Your task to perform on an android device: toggle priority inbox in the gmail app Image 0: 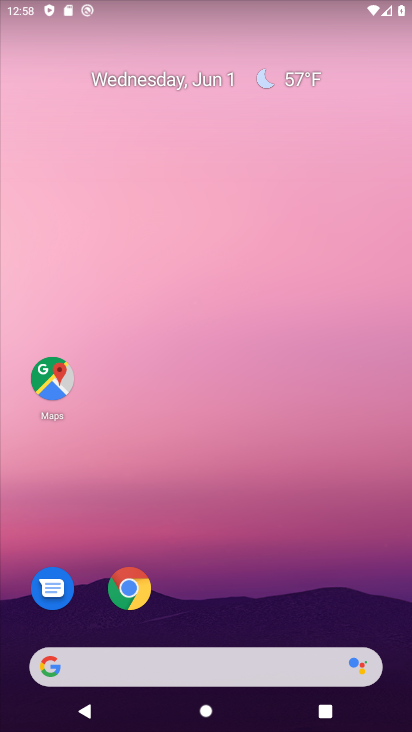
Step 0: drag from (229, 565) to (175, 100)
Your task to perform on an android device: toggle priority inbox in the gmail app Image 1: 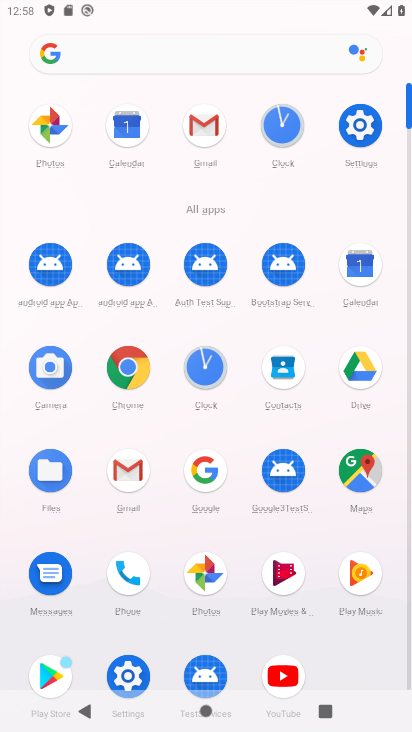
Step 1: click (139, 457)
Your task to perform on an android device: toggle priority inbox in the gmail app Image 2: 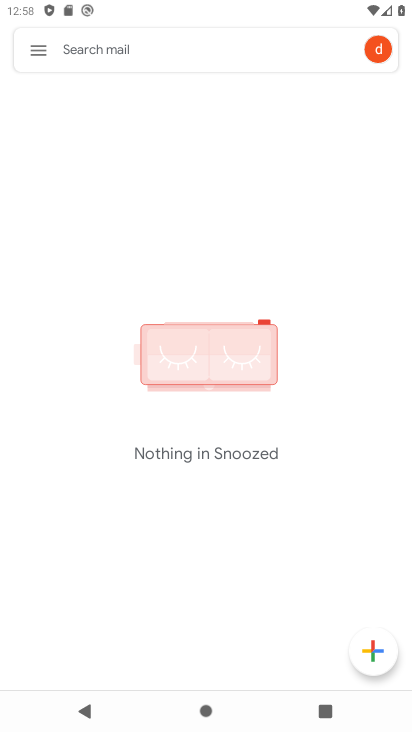
Step 2: click (40, 55)
Your task to perform on an android device: toggle priority inbox in the gmail app Image 3: 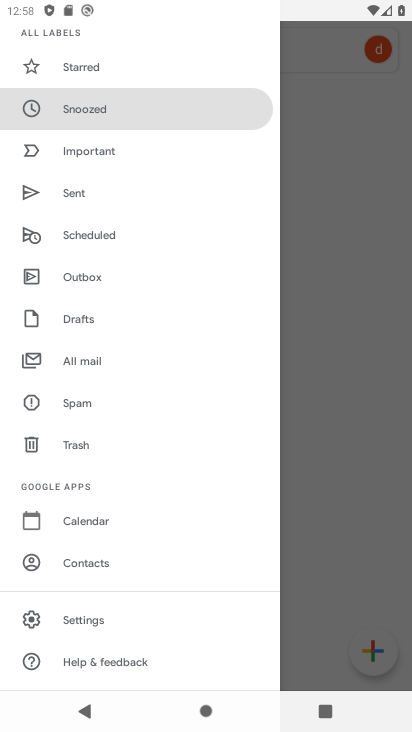
Step 3: click (146, 622)
Your task to perform on an android device: toggle priority inbox in the gmail app Image 4: 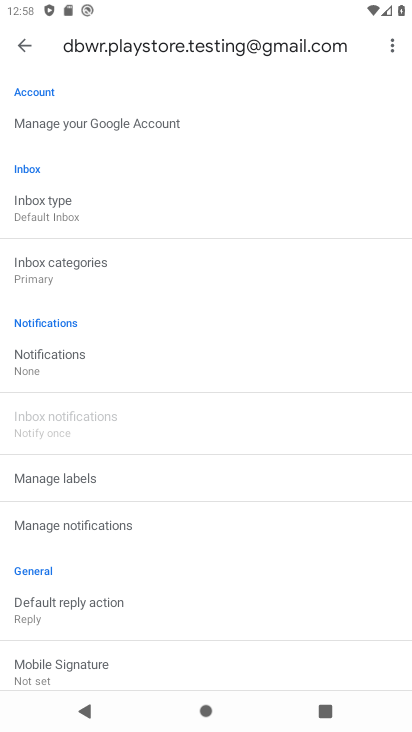
Step 4: click (157, 207)
Your task to perform on an android device: toggle priority inbox in the gmail app Image 5: 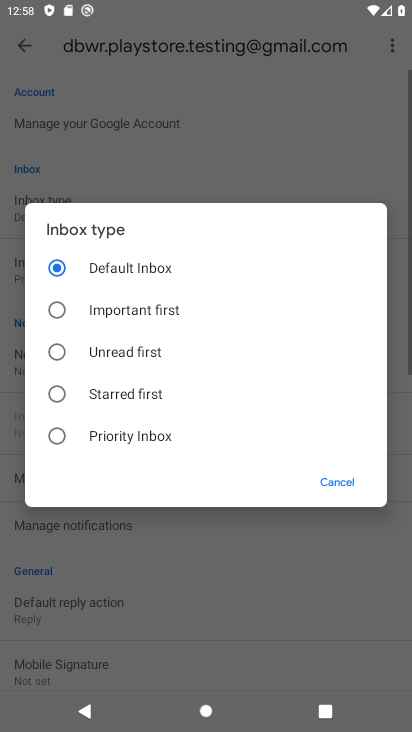
Step 5: click (150, 442)
Your task to perform on an android device: toggle priority inbox in the gmail app Image 6: 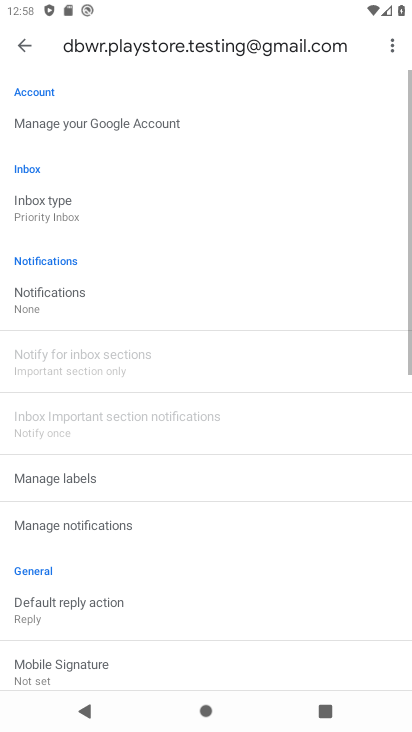
Step 6: task complete